Your task to perform on an android device: check storage Image 0: 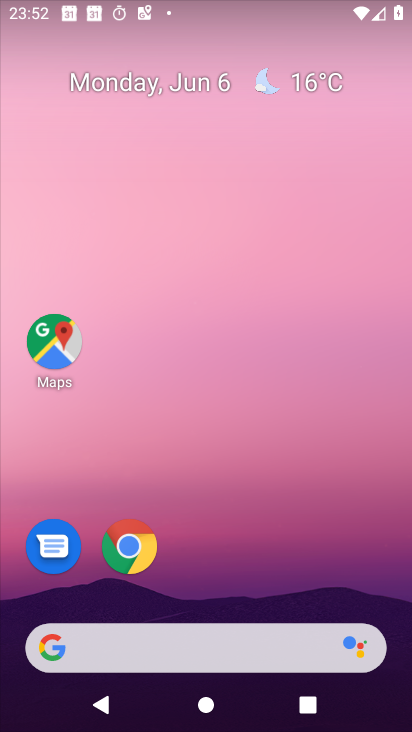
Step 0: drag from (216, 593) to (306, 49)
Your task to perform on an android device: check storage Image 1: 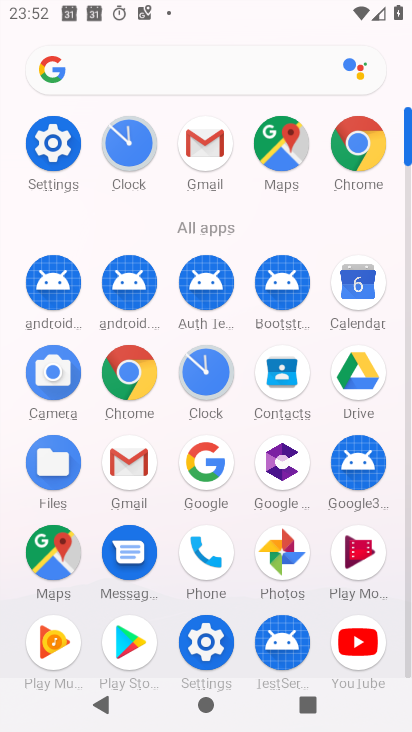
Step 1: click (193, 655)
Your task to perform on an android device: check storage Image 2: 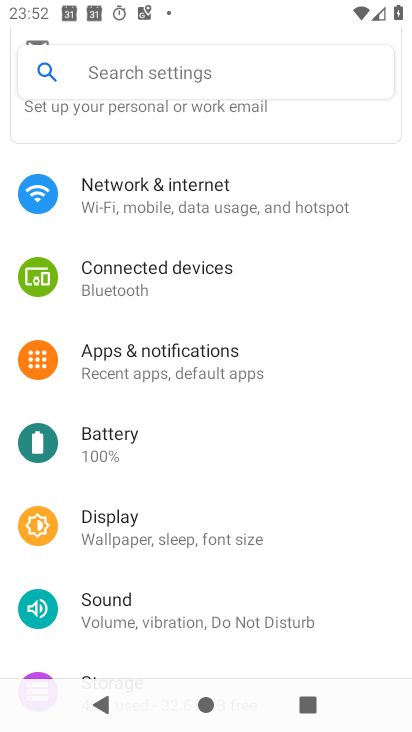
Step 2: drag from (143, 558) to (260, 229)
Your task to perform on an android device: check storage Image 3: 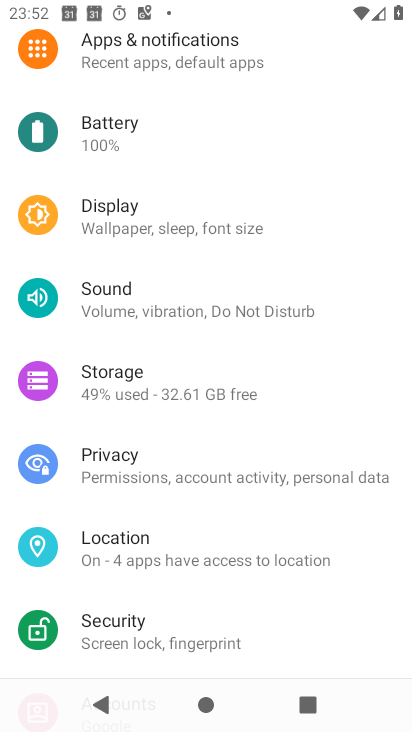
Step 3: click (156, 391)
Your task to perform on an android device: check storage Image 4: 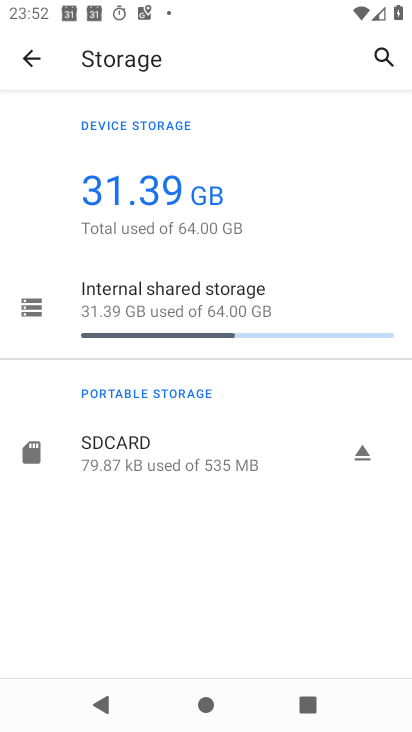
Step 4: click (159, 332)
Your task to perform on an android device: check storage Image 5: 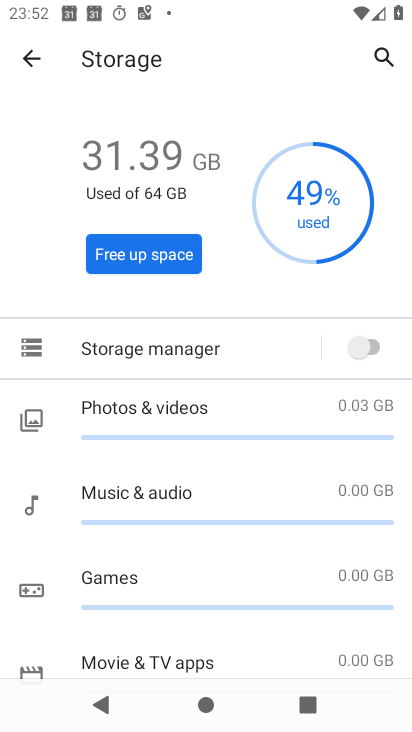
Step 5: task complete